Your task to perform on an android device: Open the map Image 0: 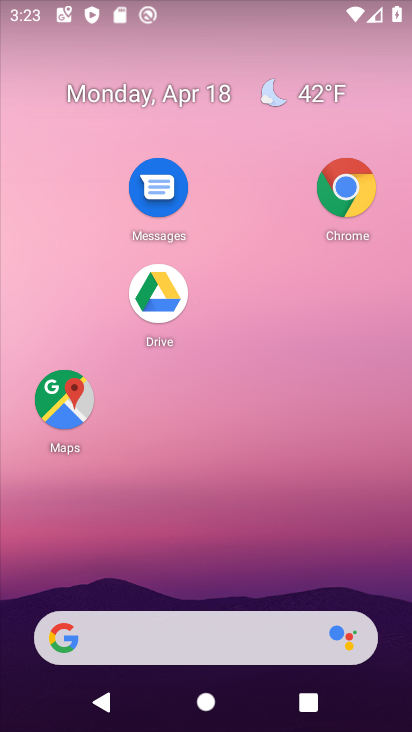
Step 0: click (72, 411)
Your task to perform on an android device: Open the map Image 1: 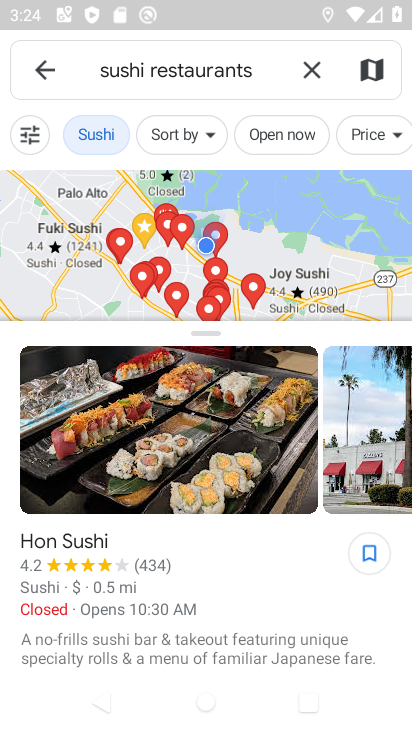
Step 1: task complete